Your task to perform on an android device: turn on location history Image 0: 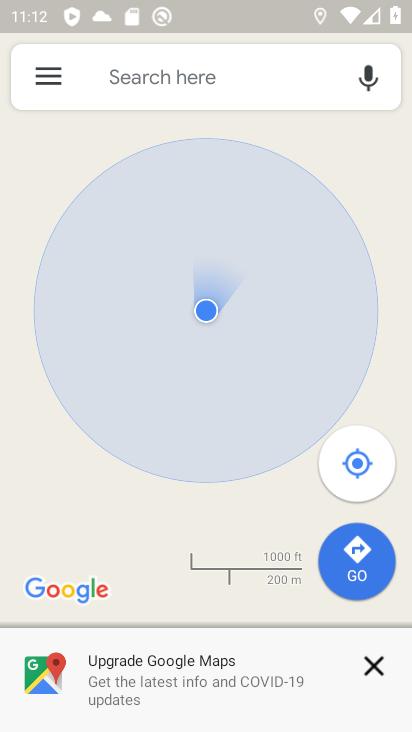
Step 0: press home button
Your task to perform on an android device: turn on location history Image 1: 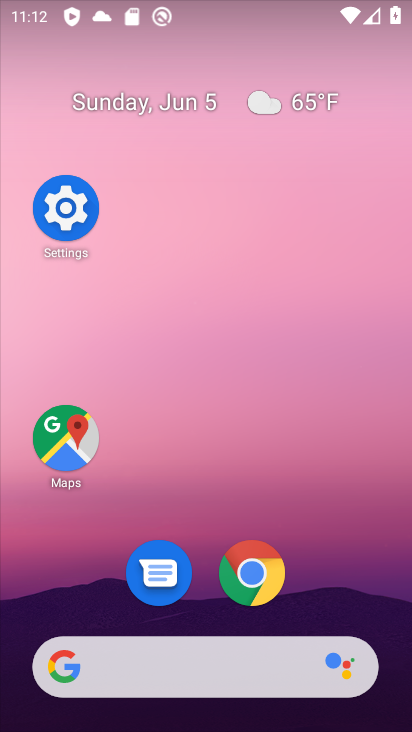
Step 1: click (66, 201)
Your task to perform on an android device: turn on location history Image 2: 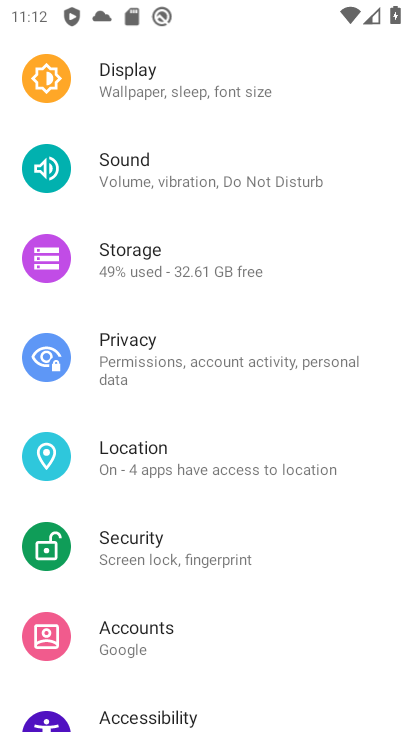
Step 2: click (171, 481)
Your task to perform on an android device: turn on location history Image 3: 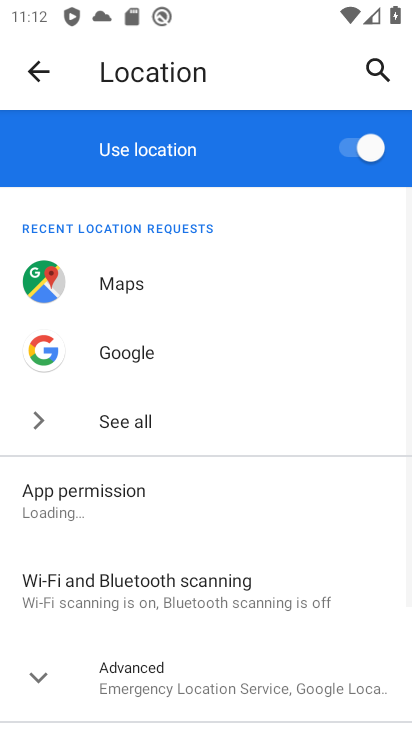
Step 3: click (198, 671)
Your task to perform on an android device: turn on location history Image 4: 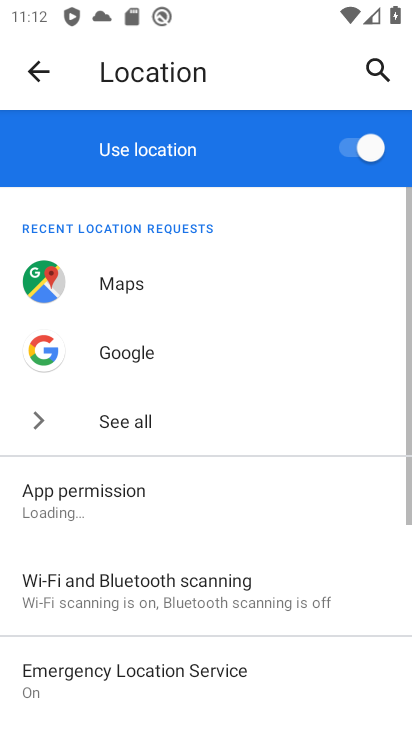
Step 4: drag from (198, 671) to (267, 310)
Your task to perform on an android device: turn on location history Image 5: 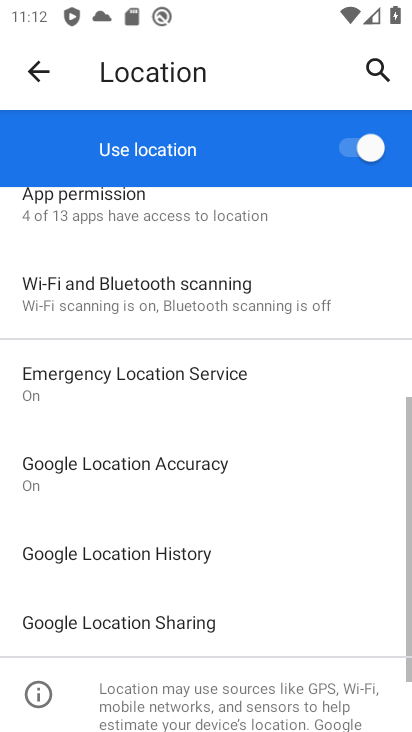
Step 5: click (124, 554)
Your task to perform on an android device: turn on location history Image 6: 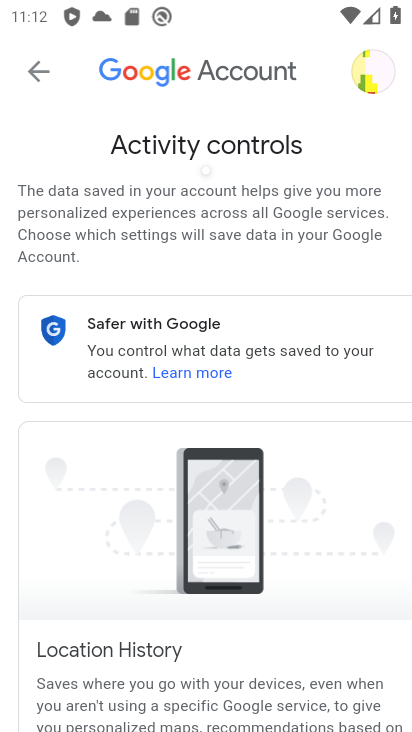
Step 6: drag from (122, 546) to (180, 189)
Your task to perform on an android device: turn on location history Image 7: 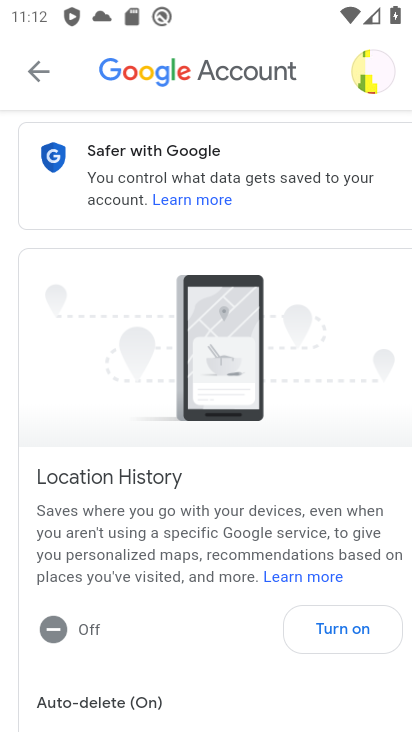
Step 7: click (361, 620)
Your task to perform on an android device: turn on location history Image 8: 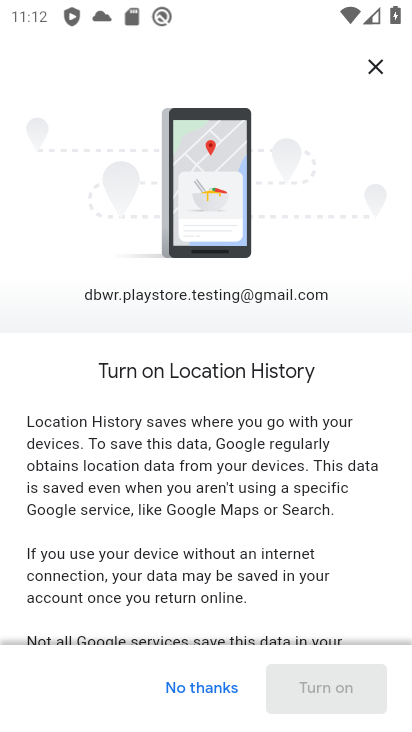
Step 8: drag from (310, 603) to (329, 197)
Your task to perform on an android device: turn on location history Image 9: 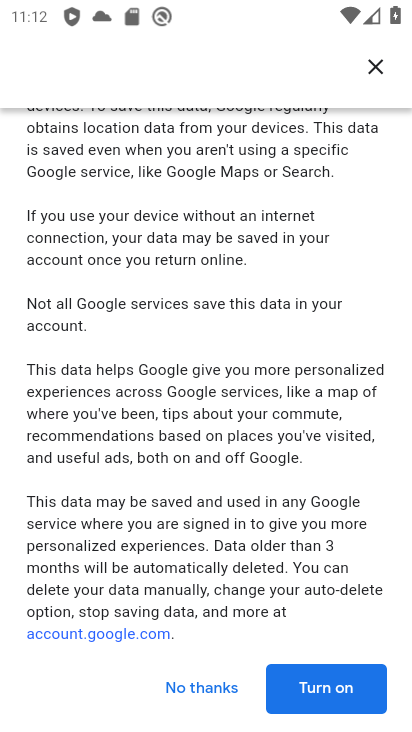
Step 9: click (334, 680)
Your task to perform on an android device: turn on location history Image 10: 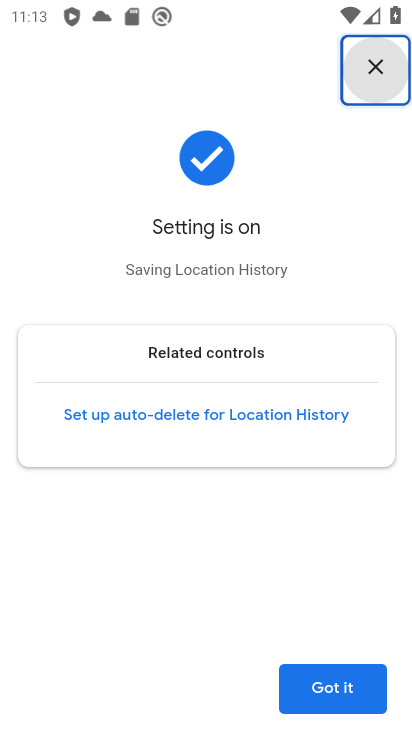
Step 10: click (363, 685)
Your task to perform on an android device: turn on location history Image 11: 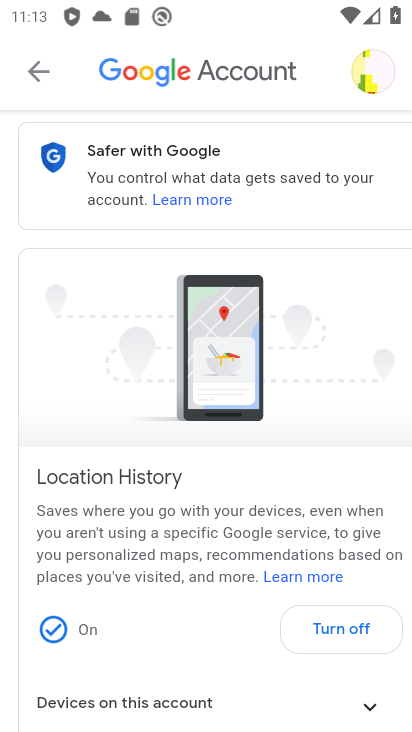
Step 11: task complete